Your task to perform on an android device: Go to CNN.com Image 0: 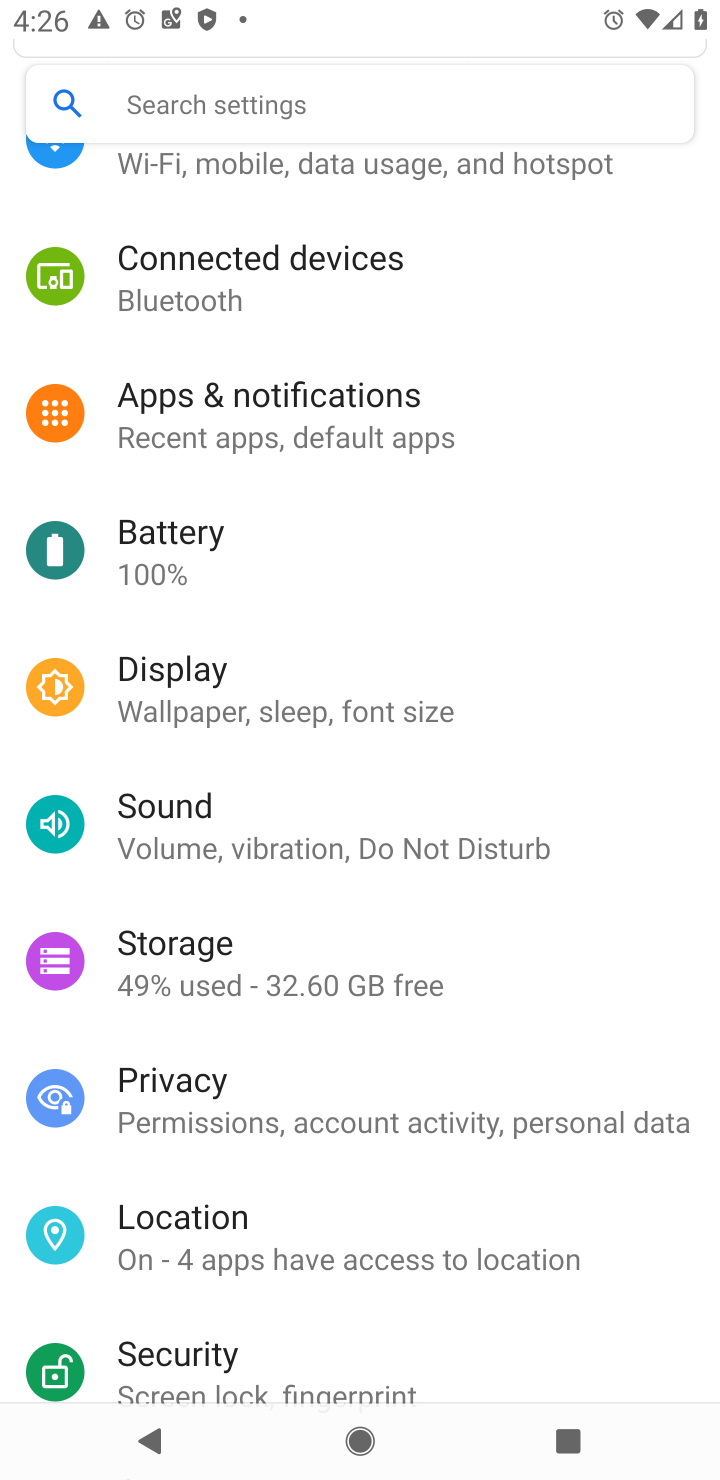
Step 0: press home button
Your task to perform on an android device: Go to CNN.com Image 1: 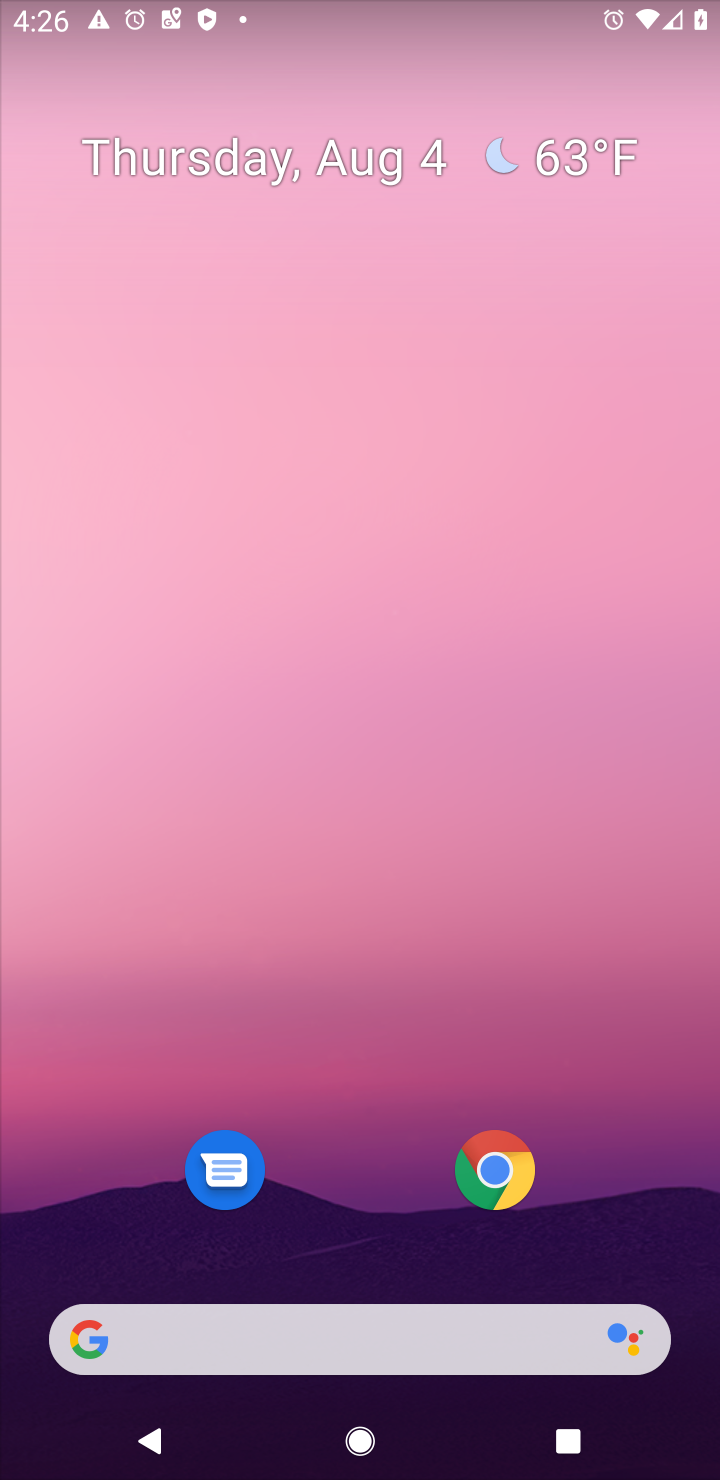
Step 1: click (499, 1174)
Your task to perform on an android device: Go to CNN.com Image 2: 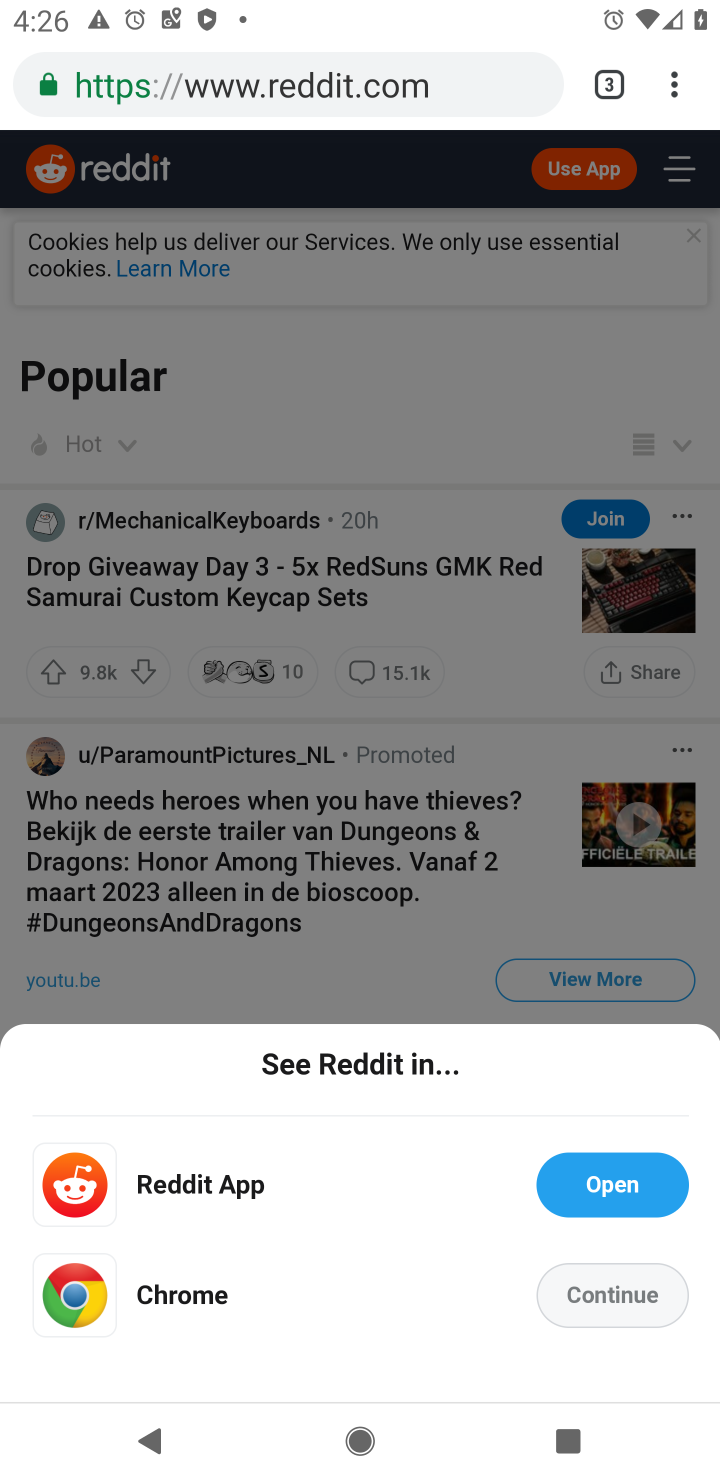
Step 2: click (509, 88)
Your task to perform on an android device: Go to CNN.com Image 3: 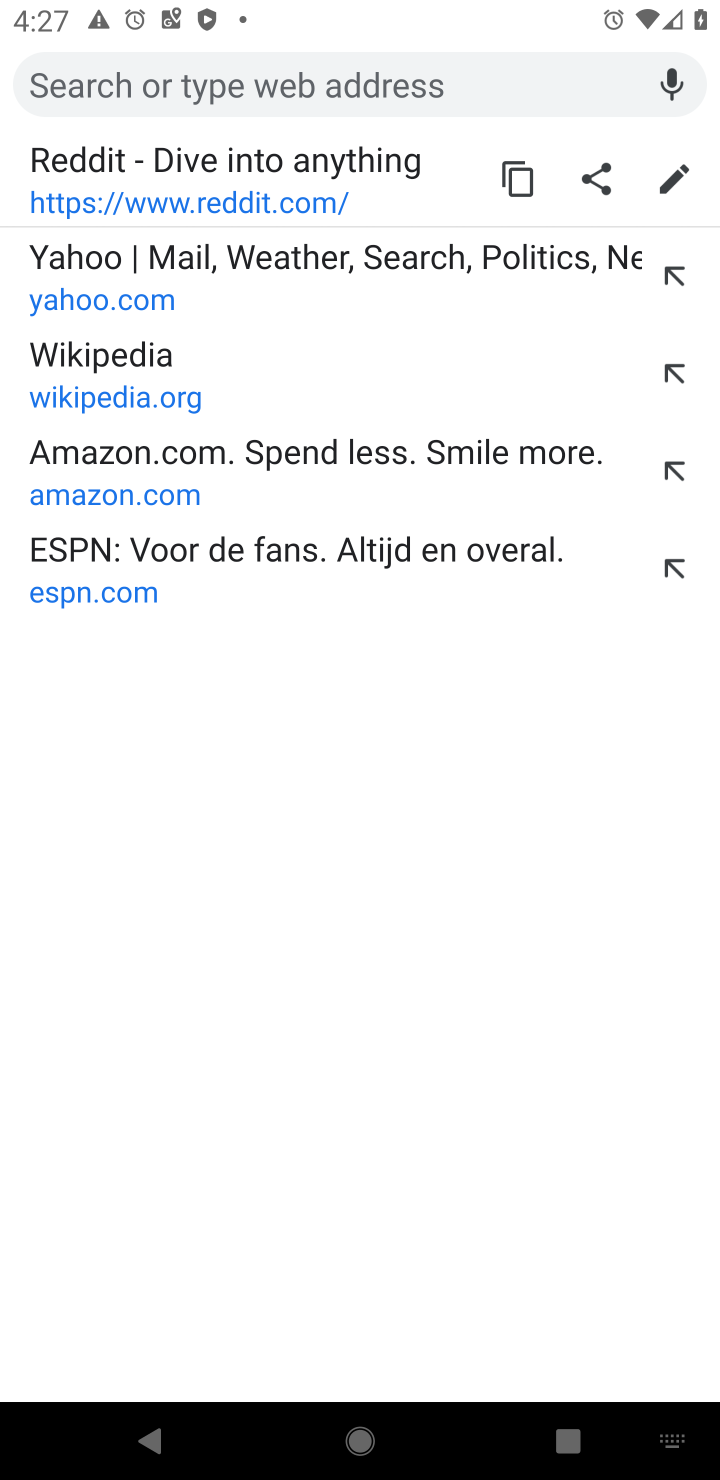
Step 3: type "CNN.com"
Your task to perform on an android device: Go to CNN.com Image 4: 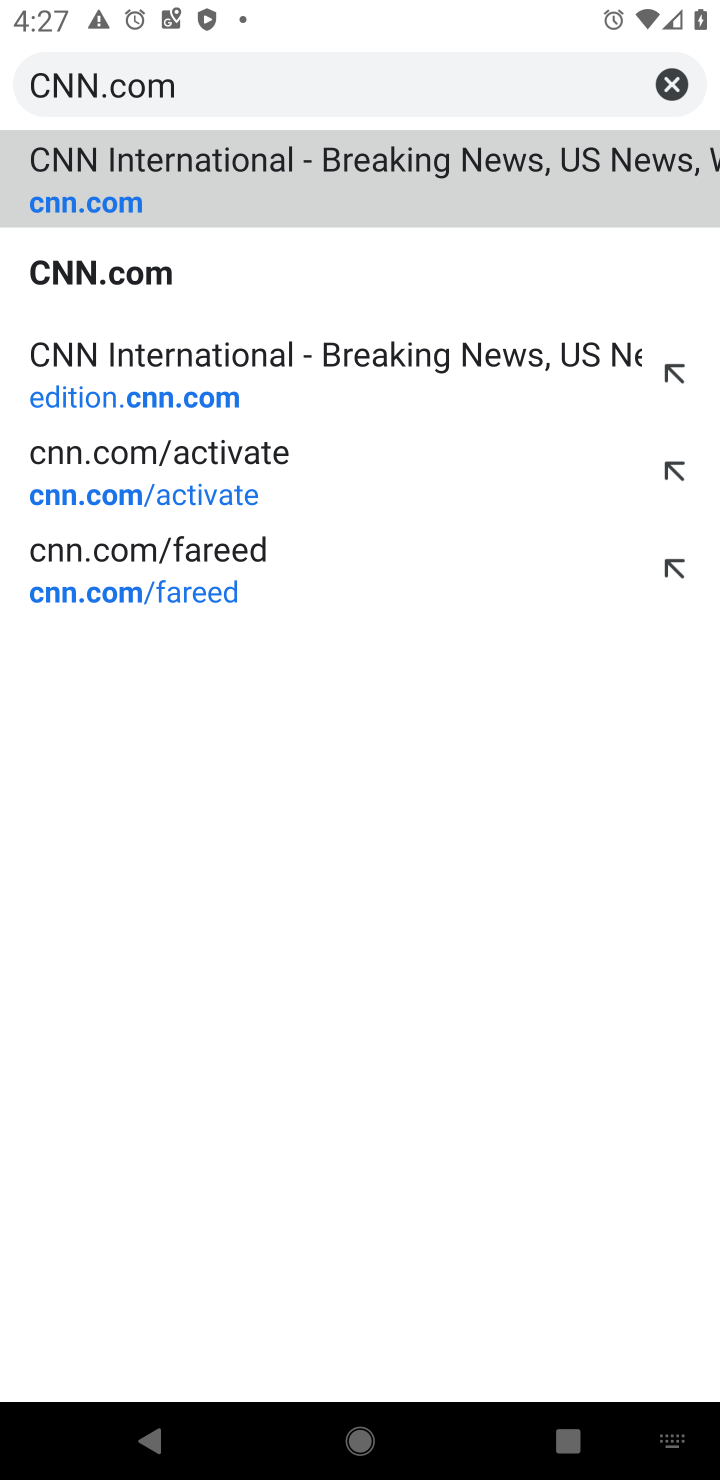
Step 4: click (124, 162)
Your task to perform on an android device: Go to CNN.com Image 5: 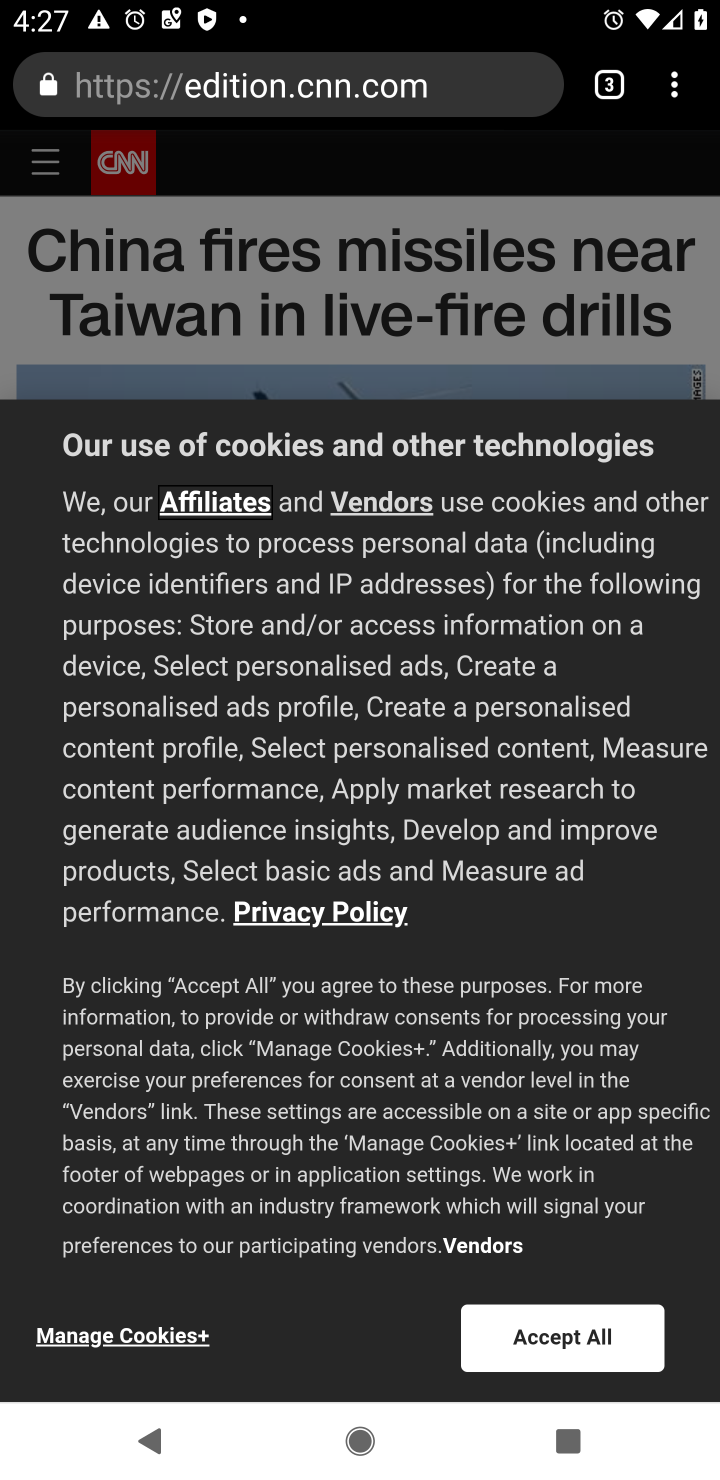
Step 5: click (566, 1334)
Your task to perform on an android device: Go to CNN.com Image 6: 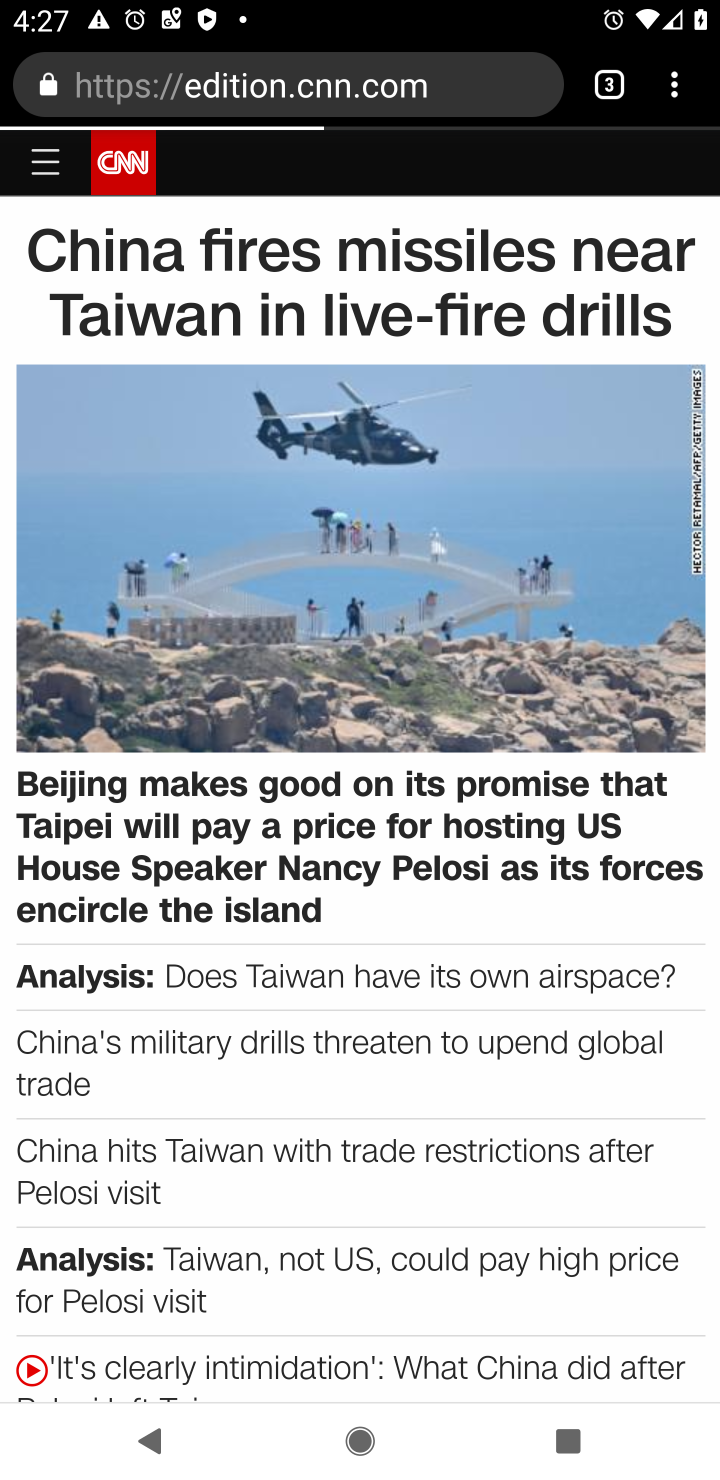
Step 6: task complete